Your task to perform on an android device: turn on location history Image 0: 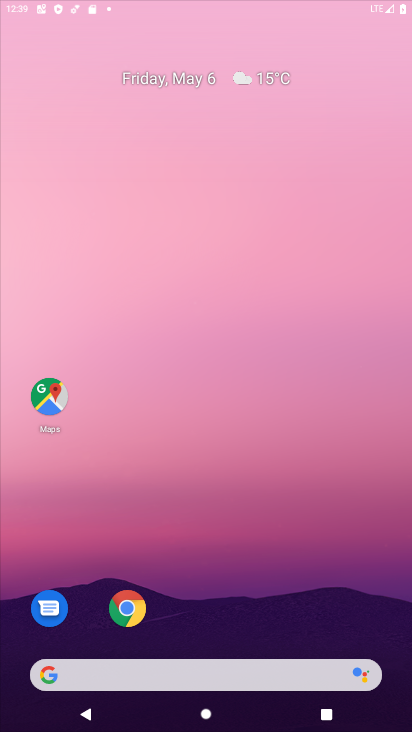
Step 0: drag from (214, 55) to (337, 14)
Your task to perform on an android device: turn on location history Image 1: 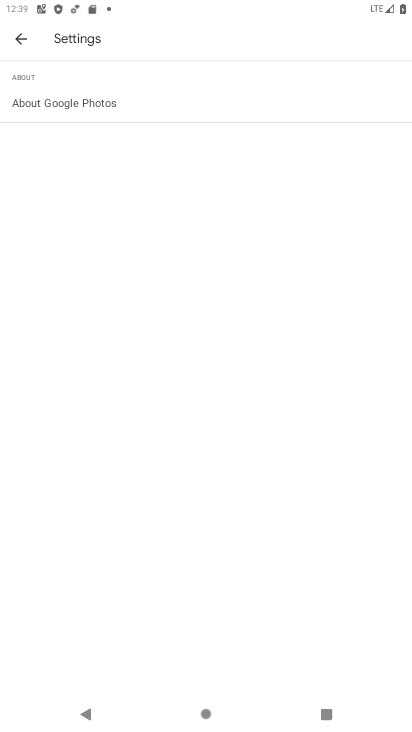
Step 1: drag from (276, 551) to (307, 74)
Your task to perform on an android device: turn on location history Image 2: 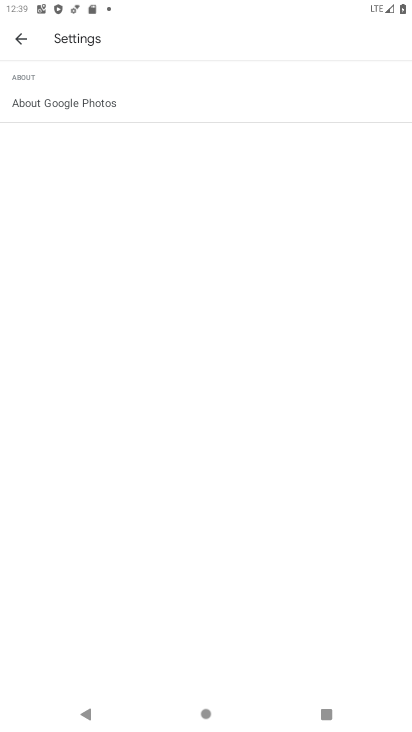
Step 2: press home button
Your task to perform on an android device: turn on location history Image 3: 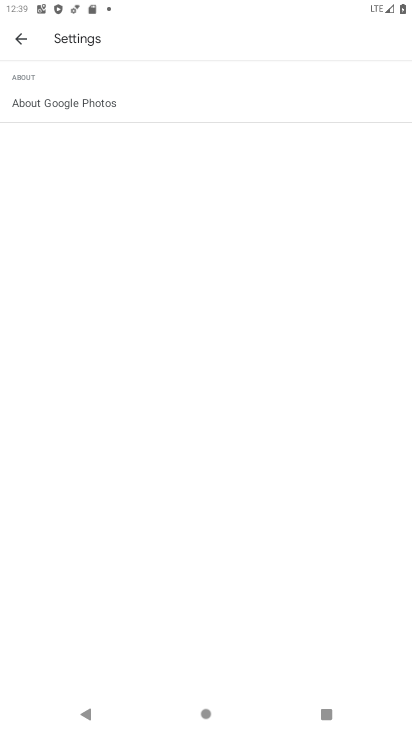
Step 3: press home button
Your task to perform on an android device: turn on location history Image 4: 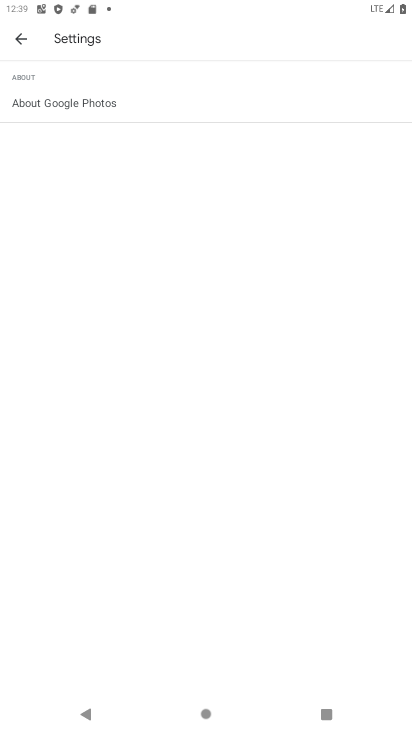
Step 4: click (216, 177)
Your task to perform on an android device: turn on location history Image 5: 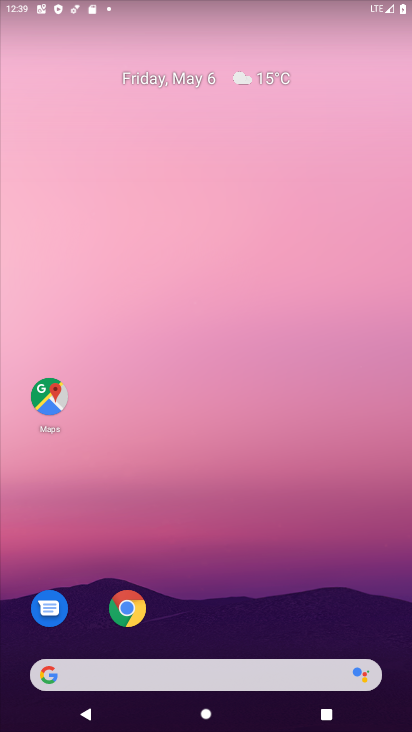
Step 5: drag from (166, 610) to (194, 186)
Your task to perform on an android device: turn on location history Image 6: 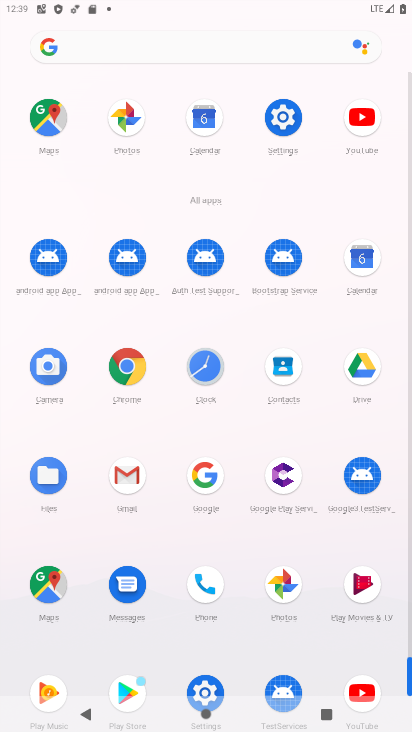
Step 6: click (273, 104)
Your task to perform on an android device: turn on location history Image 7: 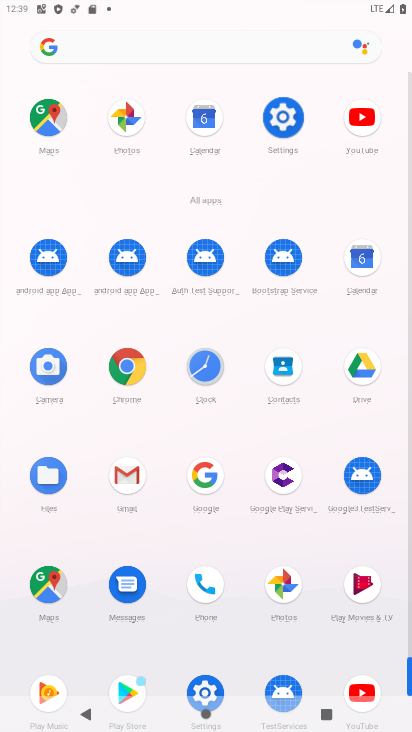
Step 7: click (281, 105)
Your task to perform on an android device: turn on location history Image 8: 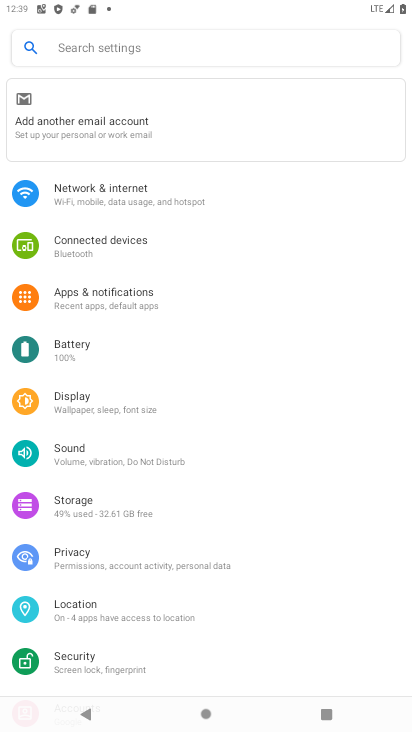
Step 8: click (107, 597)
Your task to perform on an android device: turn on location history Image 9: 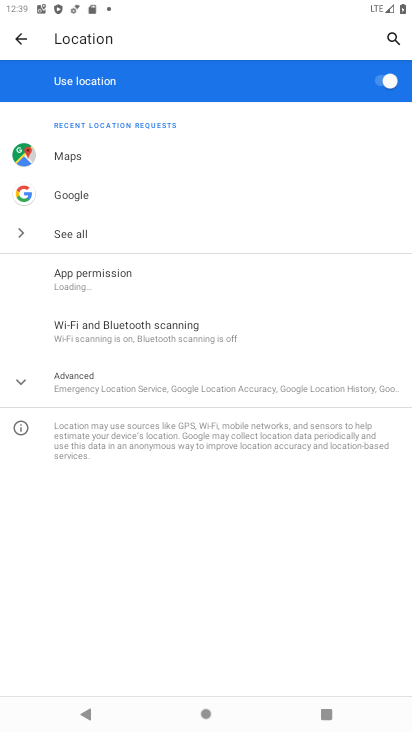
Step 9: click (90, 404)
Your task to perform on an android device: turn on location history Image 10: 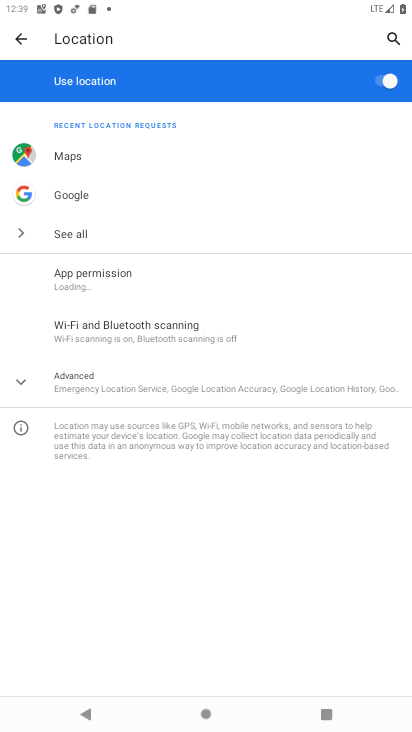
Step 10: click (91, 381)
Your task to perform on an android device: turn on location history Image 11: 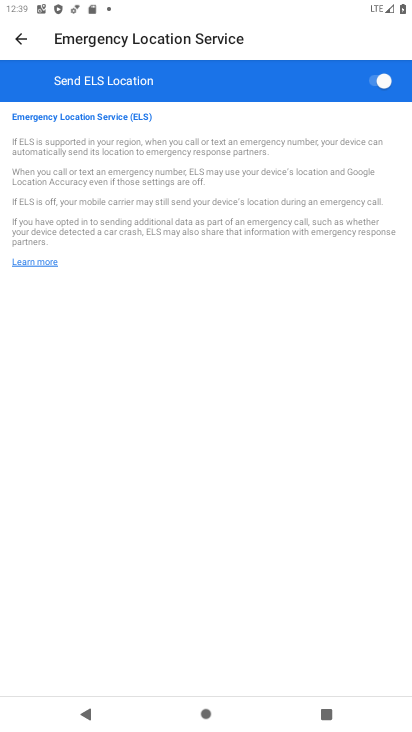
Step 11: drag from (195, 517) to (247, 200)
Your task to perform on an android device: turn on location history Image 12: 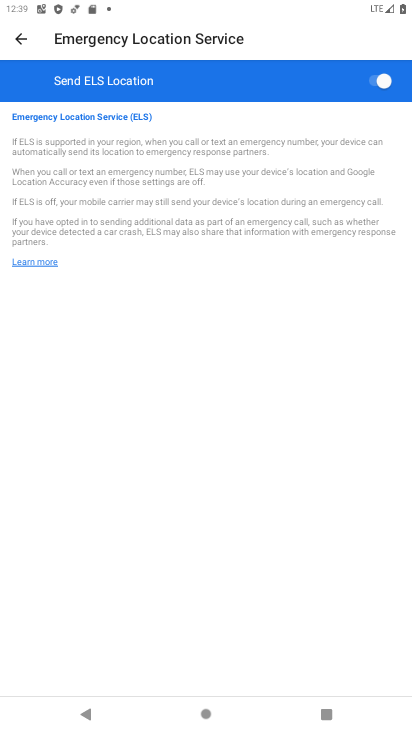
Step 12: press back button
Your task to perform on an android device: turn on location history Image 13: 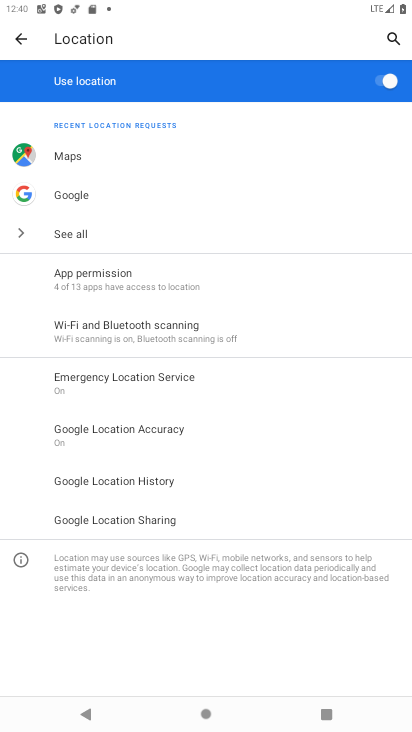
Step 13: click (89, 480)
Your task to perform on an android device: turn on location history Image 14: 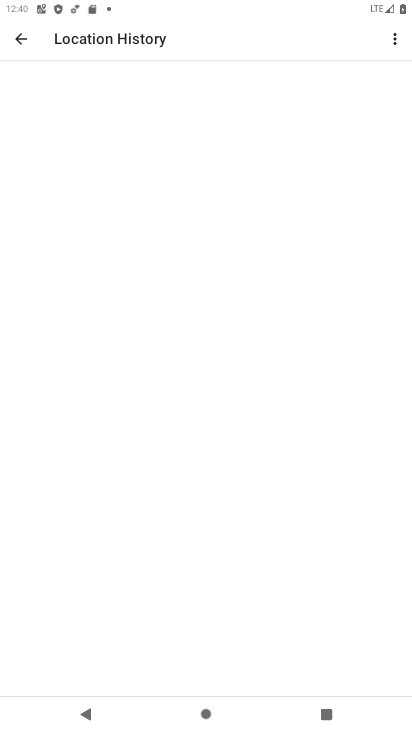
Step 14: drag from (263, 524) to (284, 168)
Your task to perform on an android device: turn on location history Image 15: 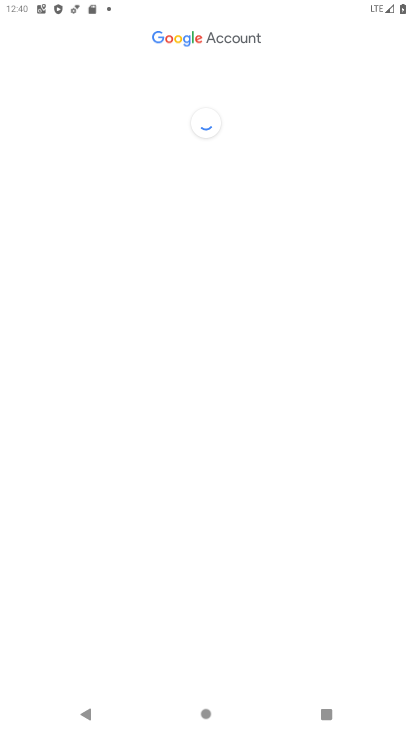
Step 15: drag from (209, 473) to (221, 245)
Your task to perform on an android device: turn on location history Image 16: 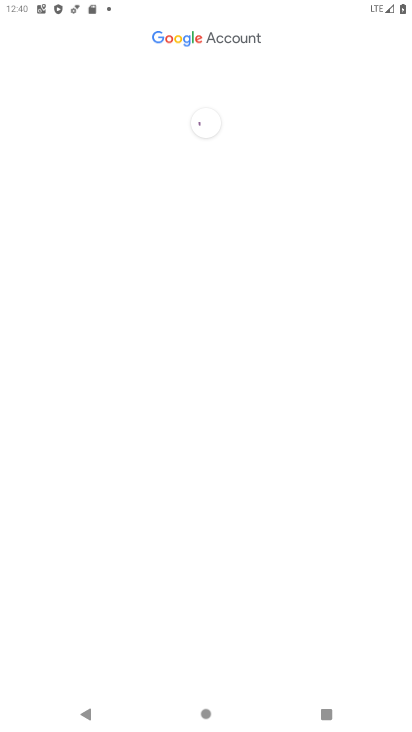
Step 16: drag from (242, 534) to (251, 213)
Your task to perform on an android device: turn on location history Image 17: 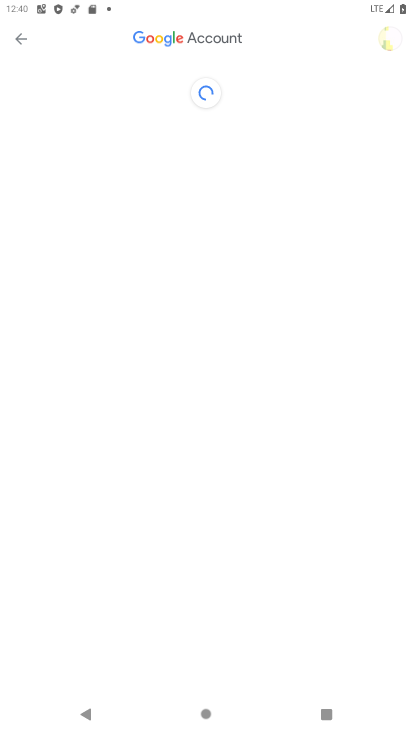
Step 17: drag from (267, 462) to (248, 156)
Your task to perform on an android device: turn on location history Image 18: 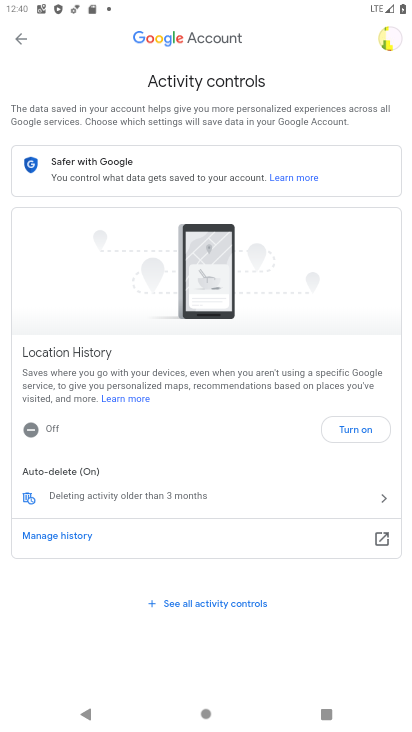
Step 18: click (351, 429)
Your task to perform on an android device: turn on location history Image 19: 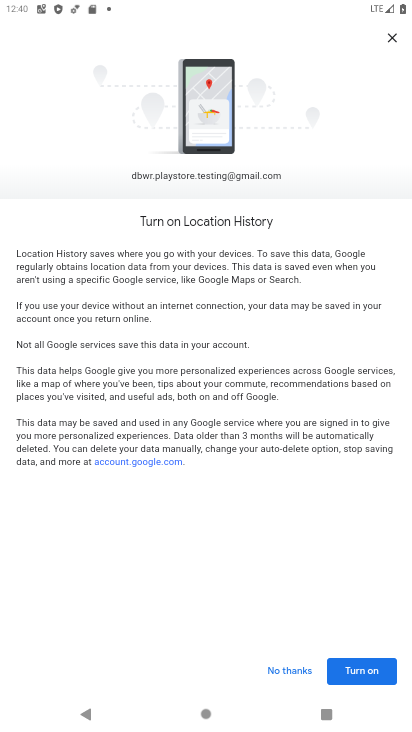
Step 19: click (354, 669)
Your task to perform on an android device: turn on location history Image 20: 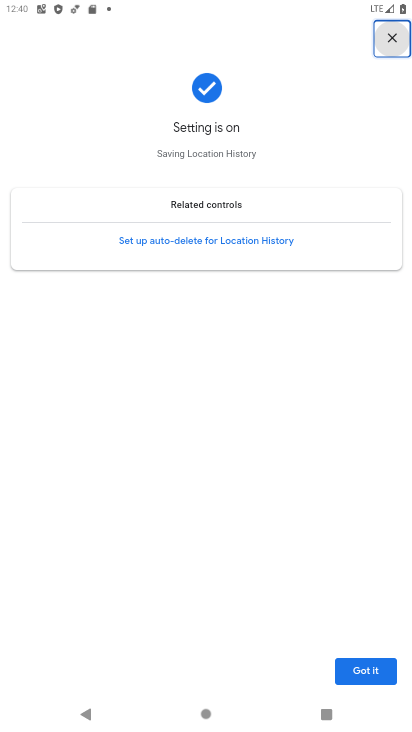
Step 20: click (376, 666)
Your task to perform on an android device: turn on location history Image 21: 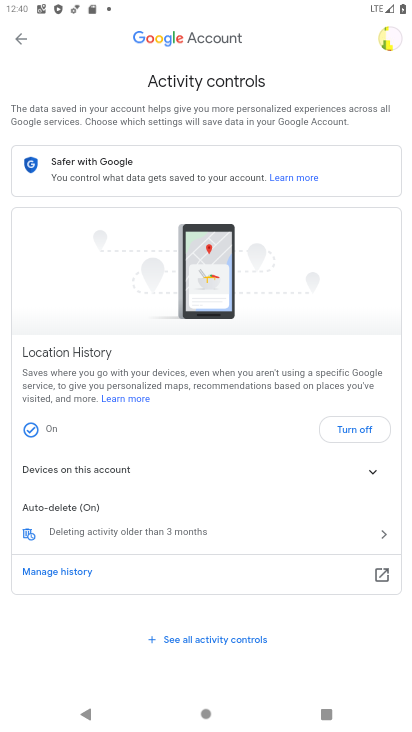
Step 21: task complete